Your task to perform on an android device: Open the map Image 0: 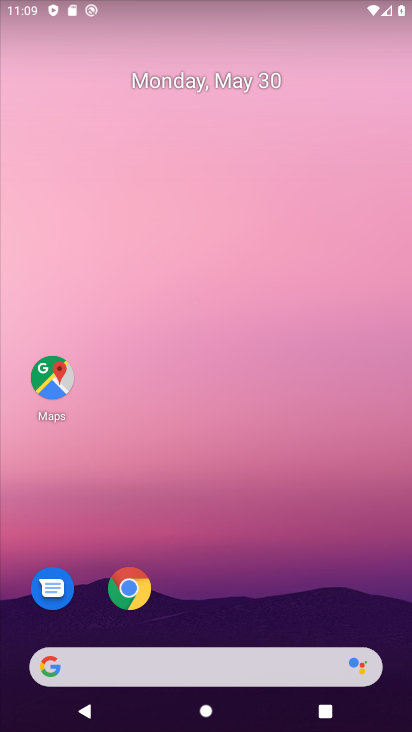
Step 0: drag from (248, 617) to (180, 132)
Your task to perform on an android device: Open the map Image 1: 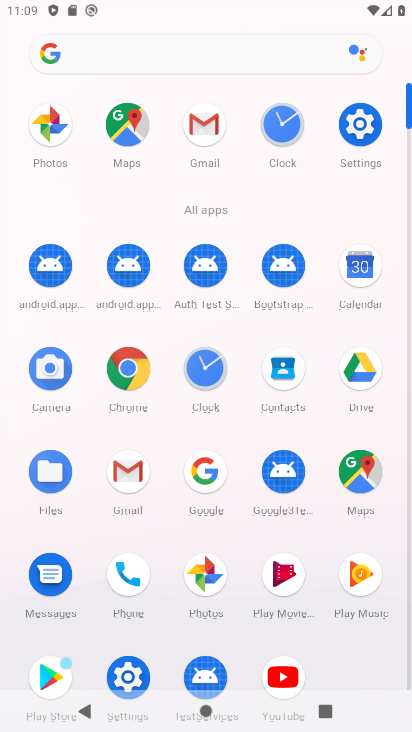
Step 1: click (122, 148)
Your task to perform on an android device: Open the map Image 2: 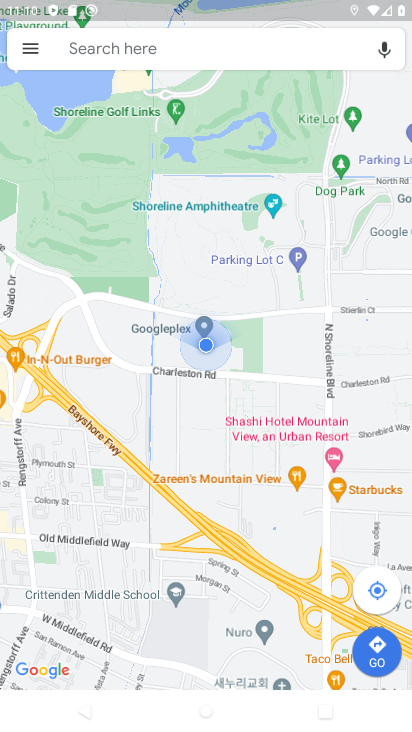
Step 2: task complete